Your task to perform on an android device: Open Google Maps and go to "Timeline" Image 0: 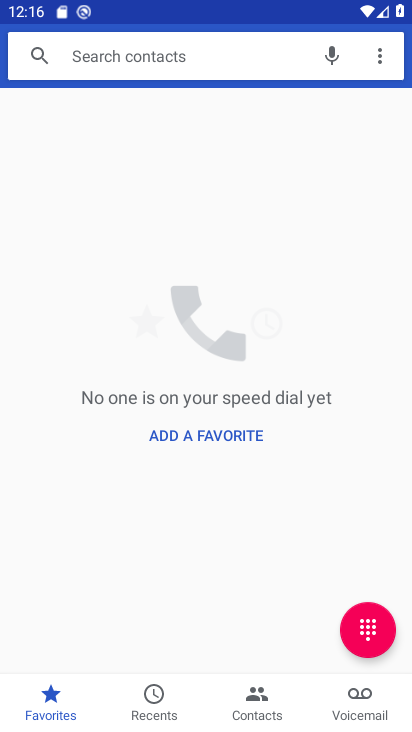
Step 0: press home button
Your task to perform on an android device: Open Google Maps and go to "Timeline" Image 1: 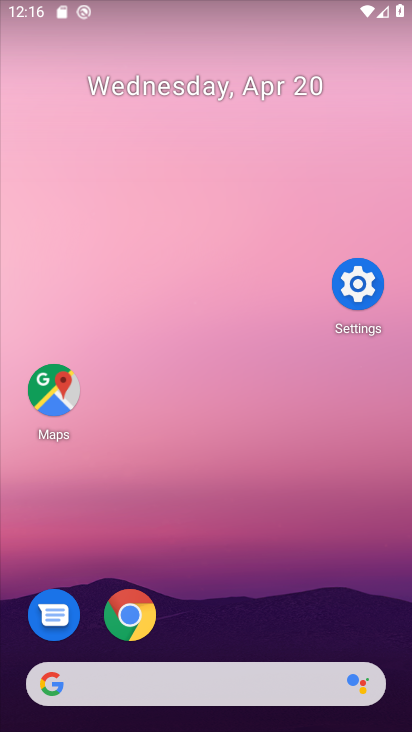
Step 1: drag from (201, 628) to (257, 171)
Your task to perform on an android device: Open Google Maps and go to "Timeline" Image 2: 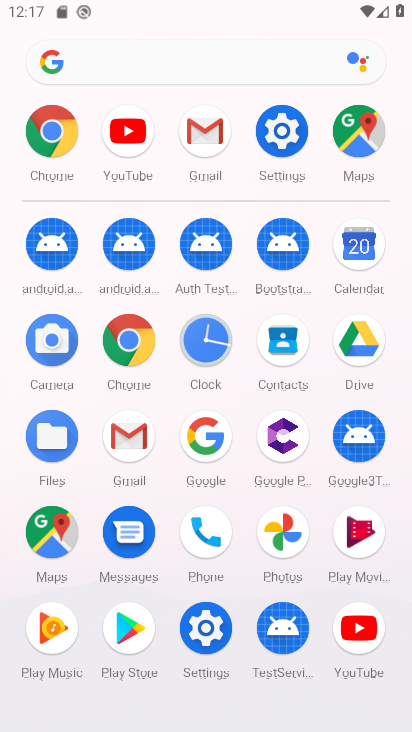
Step 2: click (59, 532)
Your task to perform on an android device: Open Google Maps and go to "Timeline" Image 3: 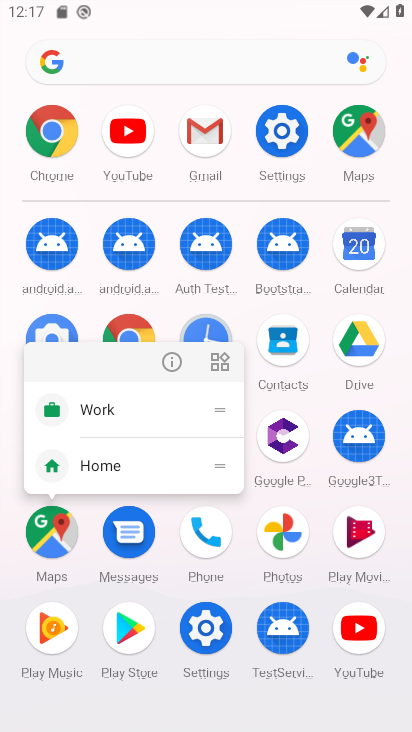
Step 3: click (159, 368)
Your task to perform on an android device: Open Google Maps and go to "Timeline" Image 4: 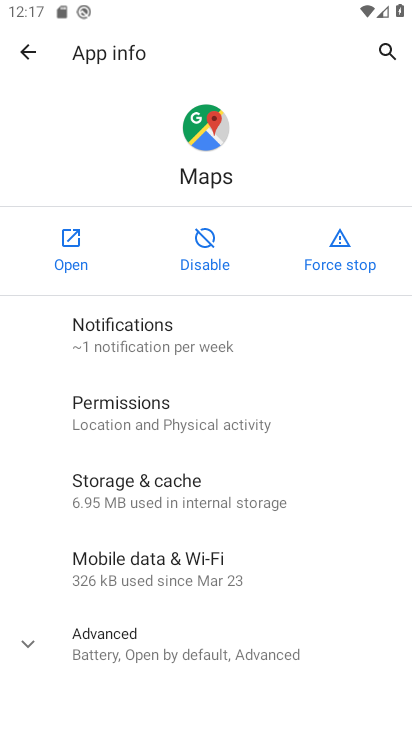
Step 4: click (74, 268)
Your task to perform on an android device: Open Google Maps and go to "Timeline" Image 5: 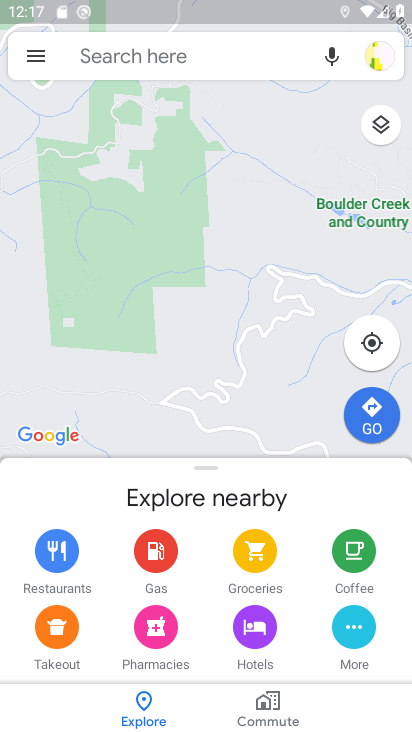
Step 5: click (34, 47)
Your task to perform on an android device: Open Google Maps and go to "Timeline" Image 6: 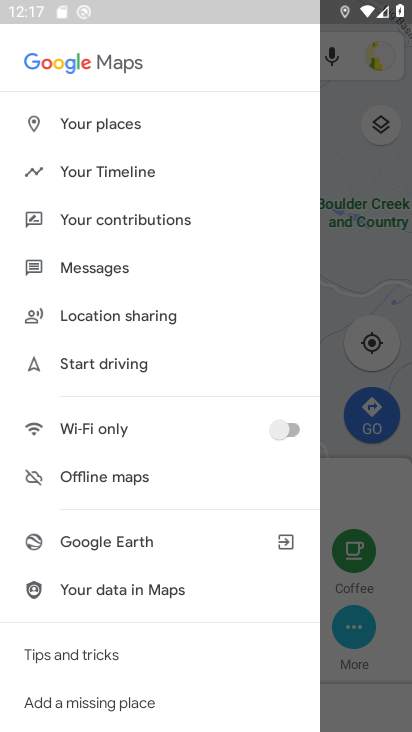
Step 6: click (114, 176)
Your task to perform on an android device: Open Google Maps and go to "Timeline" Image 7: 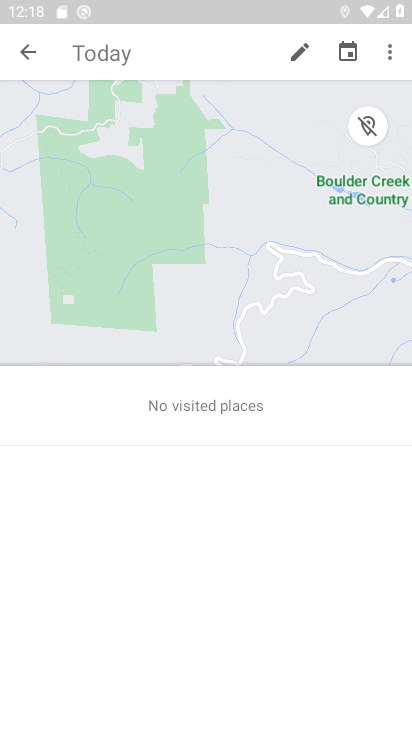
Step 7: task complete